Your task to perform on an android device: Go to Google maps Image 0: 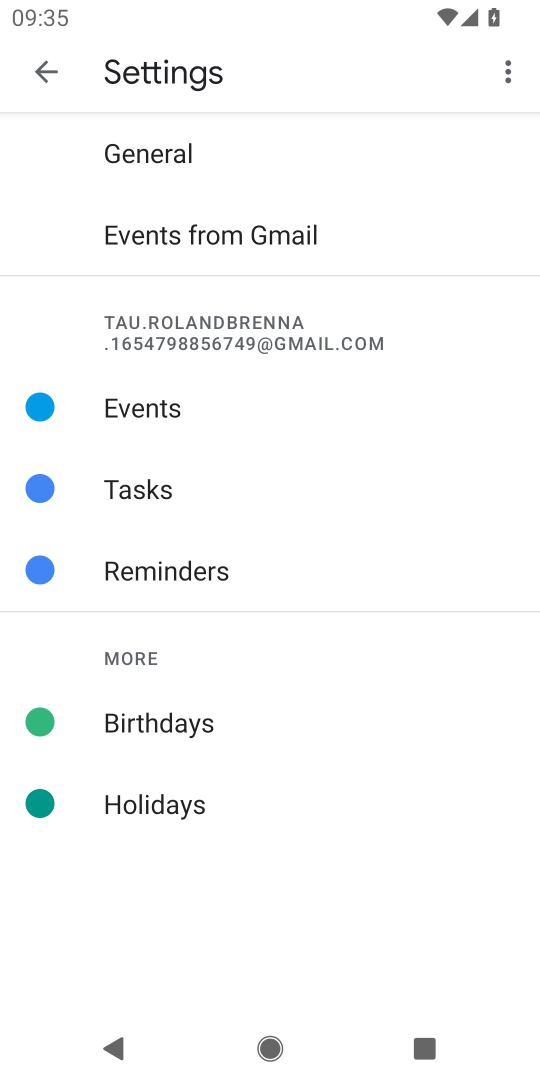
Step 0: press home button
Your task to perform on an android device: Go to Google maps Image 1: 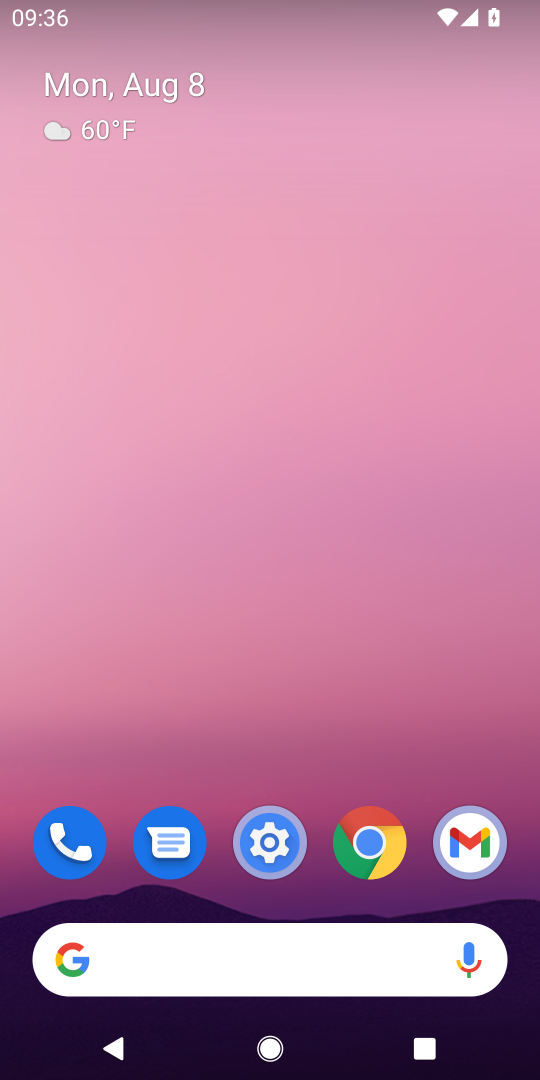
Step 1: drag from (276, 292) to (276, 104)
Your task to perform on an android device: Go to Google maps Image 2: 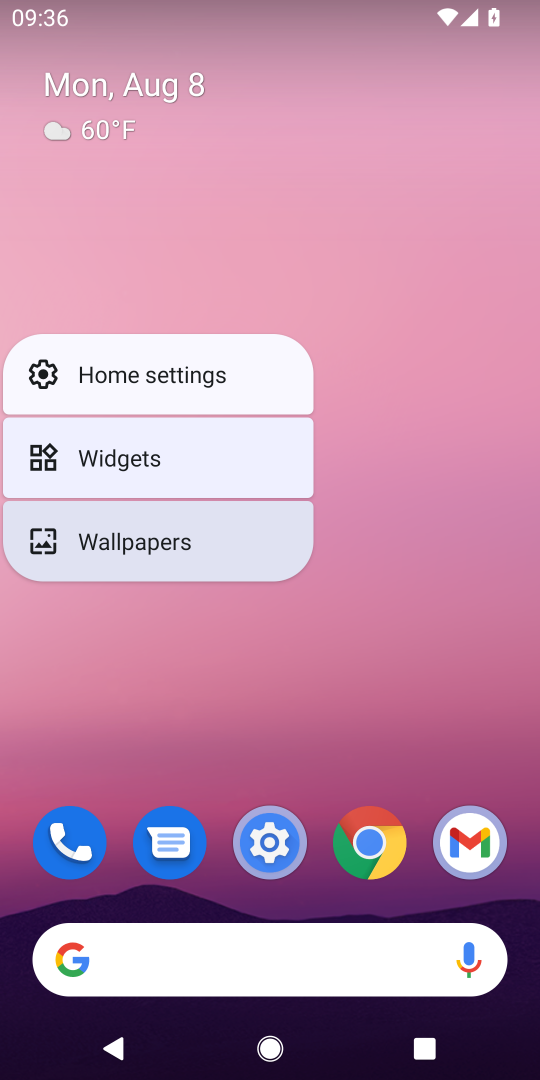
Step 2: click (256, 686)
Your task to perform on an android device: Go to Google maps Image 3: 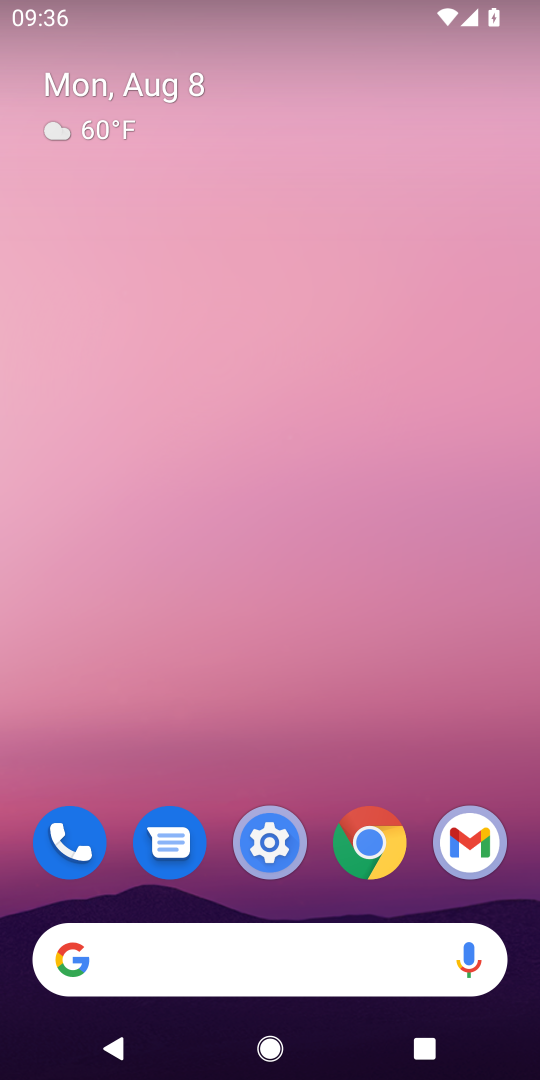
Step 3: drag from (287, 692) to (287, 10)
Your task to perform on an android device: Go to Google maps Image 4: 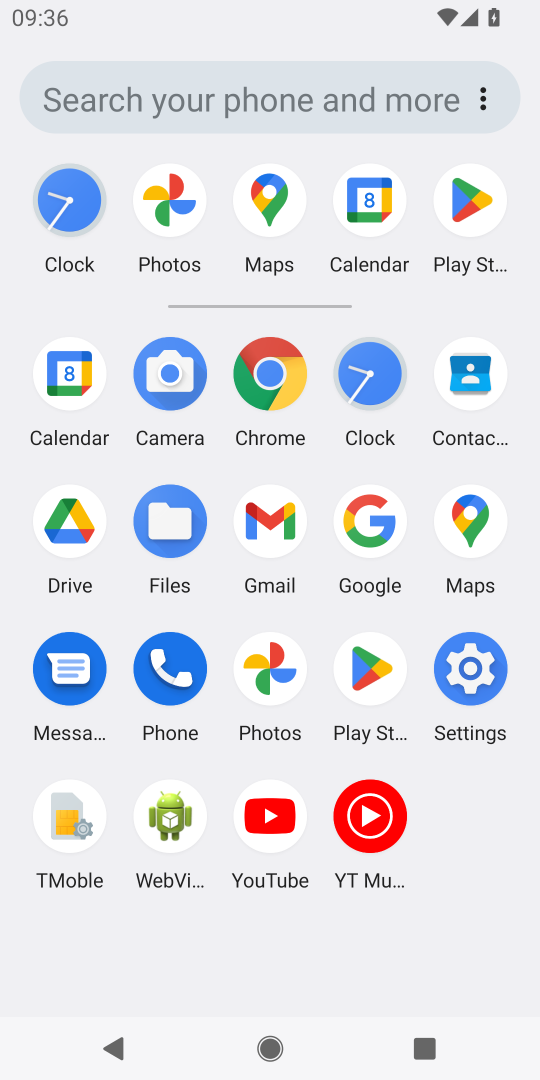
Step 4: click (475, 507)
Your task to perform on an android device: Go to Google maps Image 5: 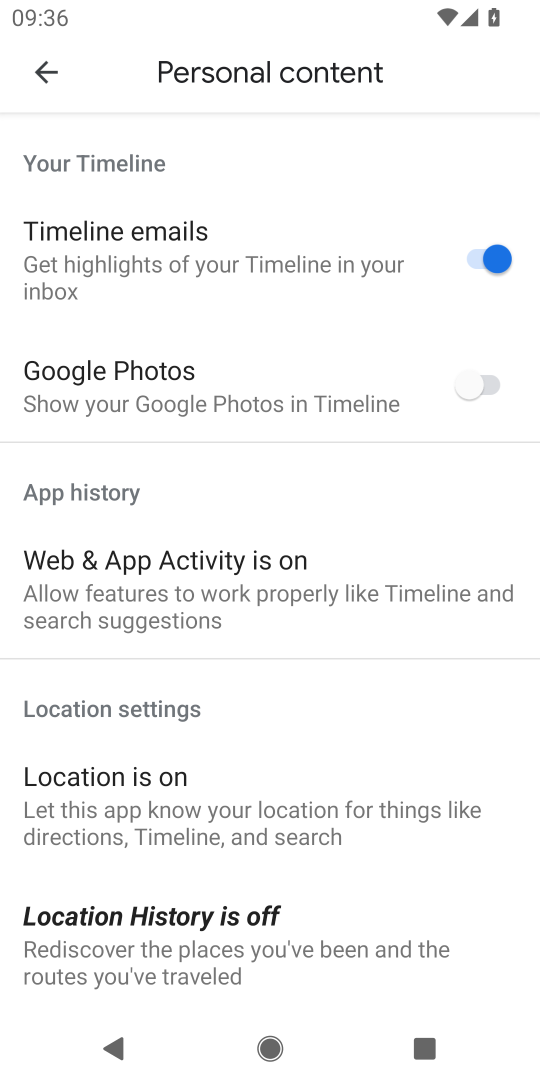
Step 5: click (53, 63)
Your task to perform on an android device: Go to Google maps Image 6: 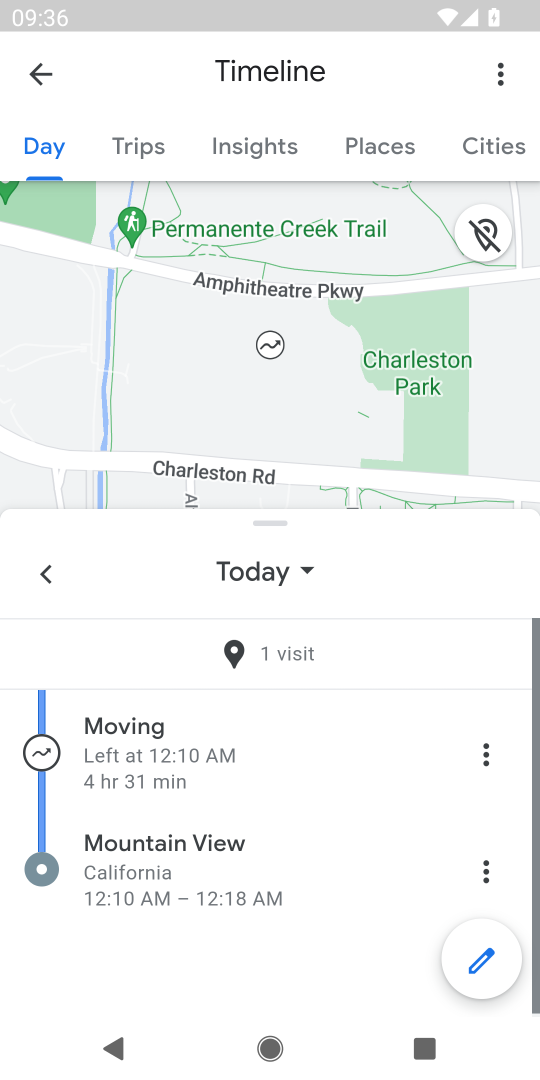
Step 6: click (41, 70)
Your task to perform on an android device: Go to Google maps Image 7: 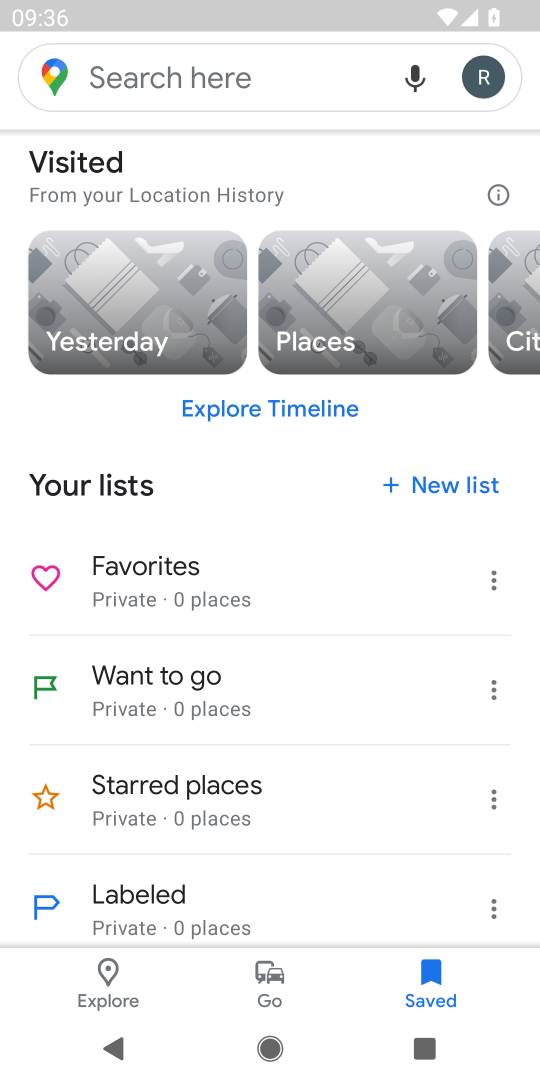
Step 7: click (90, 989)
Your task to perform on an android device: Go to Google maps Image 8: 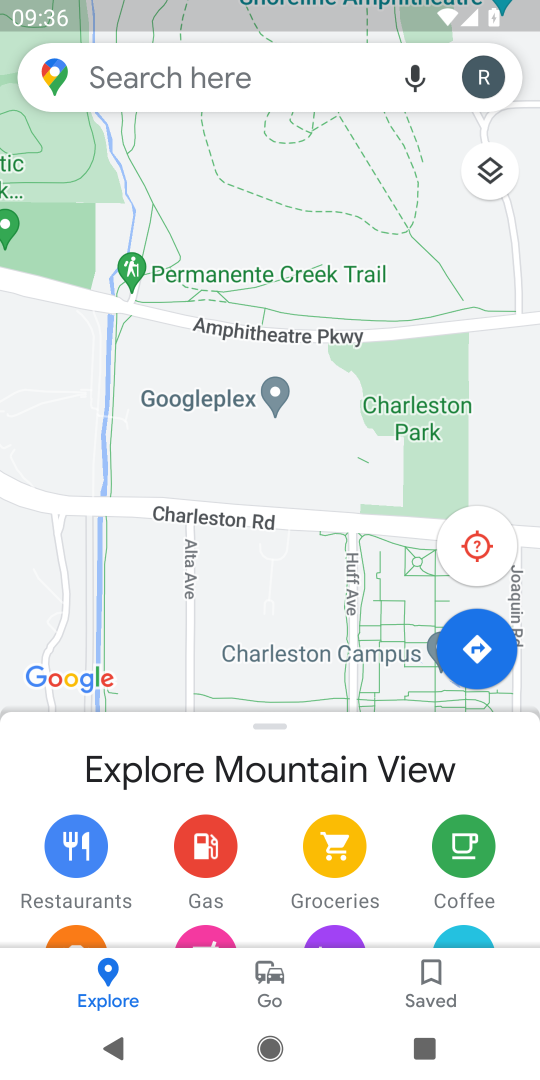
Step 8: task complete